Your task to perform on an android device: See recent photos Image 0: 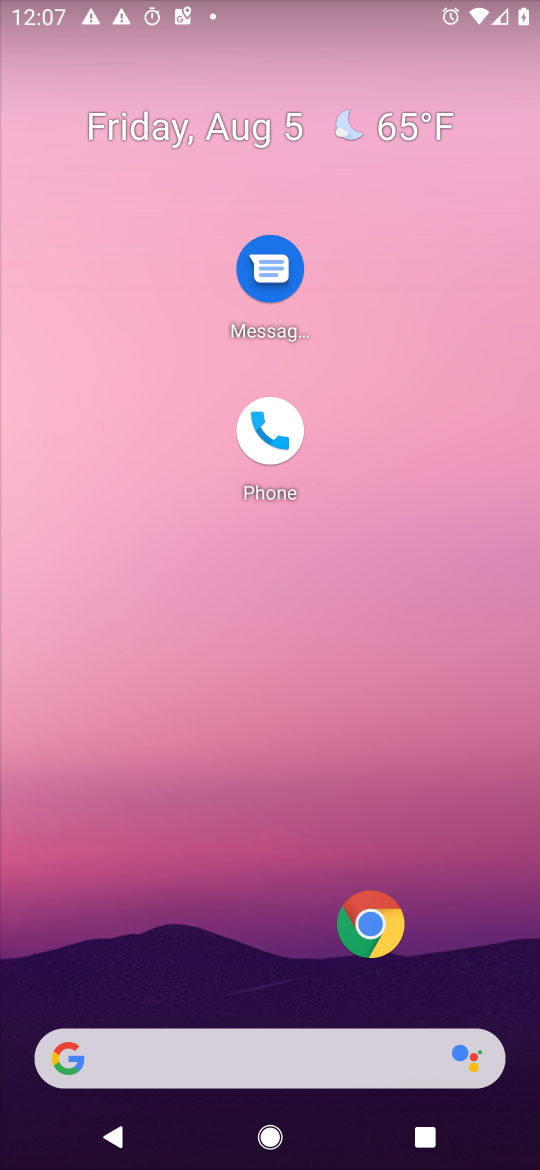
Step 0: drag from (283, 879) to (298, 291)
Your task to perform on an android device: See recent photos Image 1: 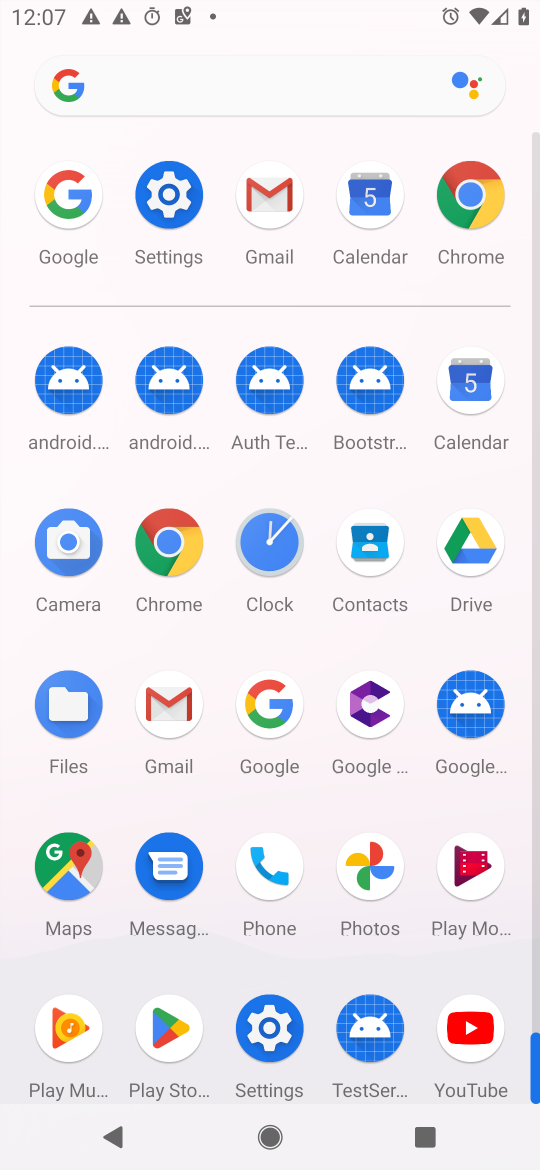
Step 1: click (366, 851)
Your task to perform on an android device: See recent photos Image 2: 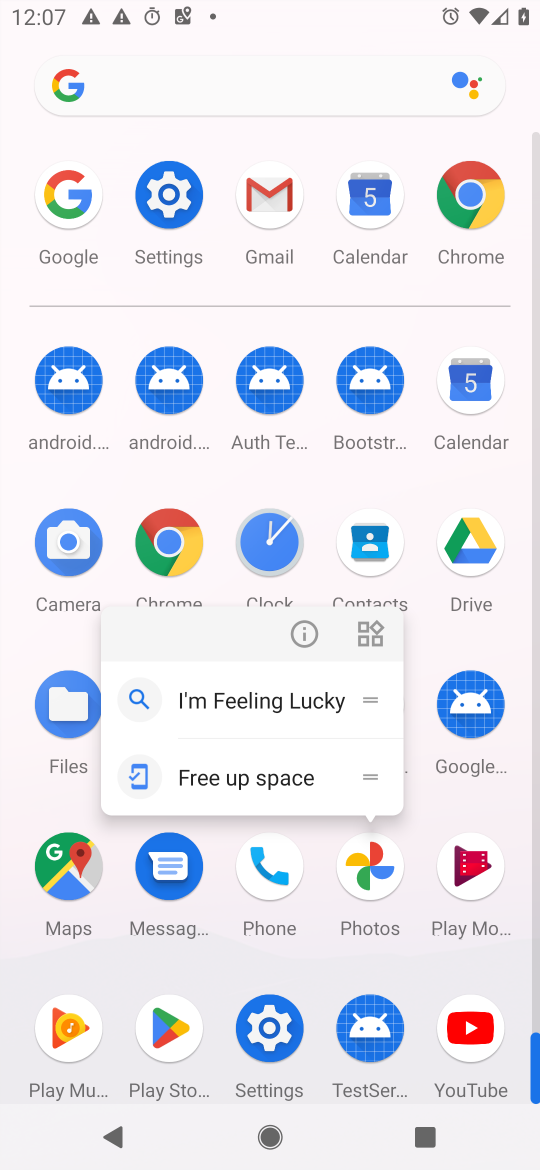
Step 2: click (294, 630)
Your task to perform on an android device: See recent photos Image 3: 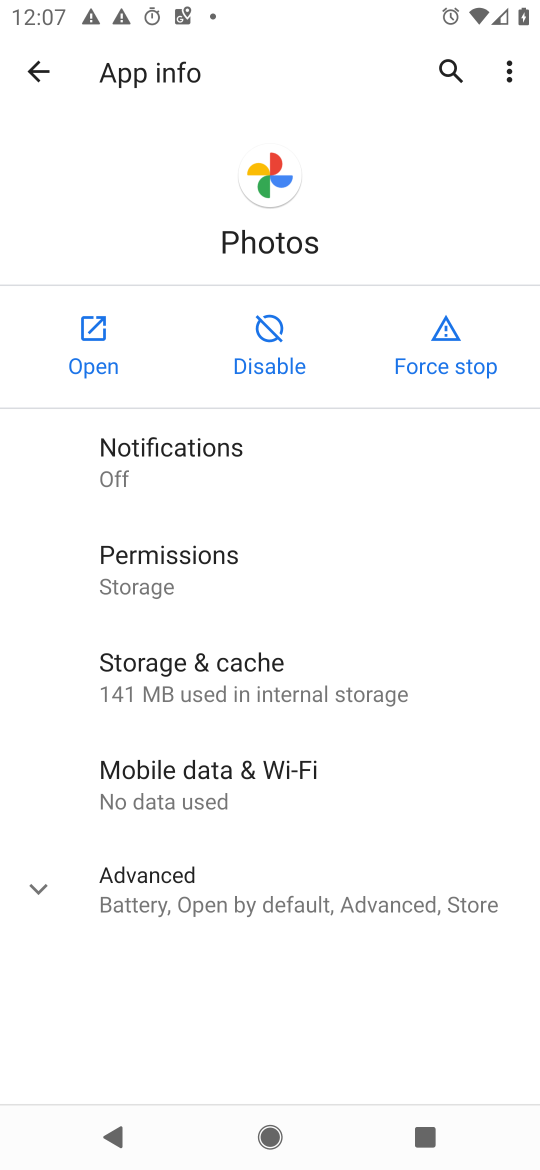
Step 3: click (93, 331)
Your task to perform on an android device: See recent photos Image 4: 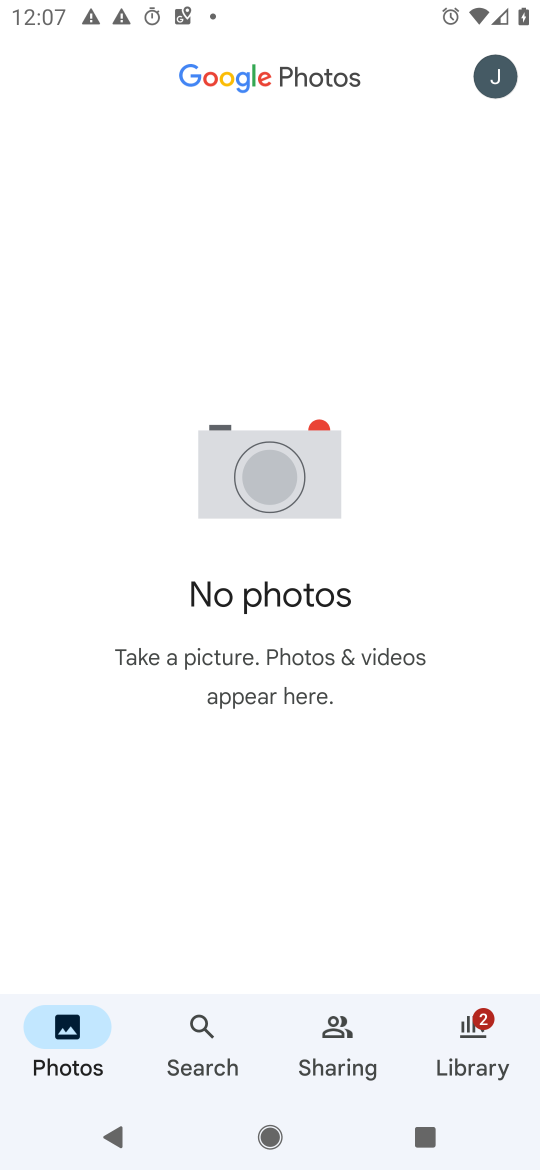
Step 4: click (499, 70)
Your task to perform on an android device: See recent photos Image 5: 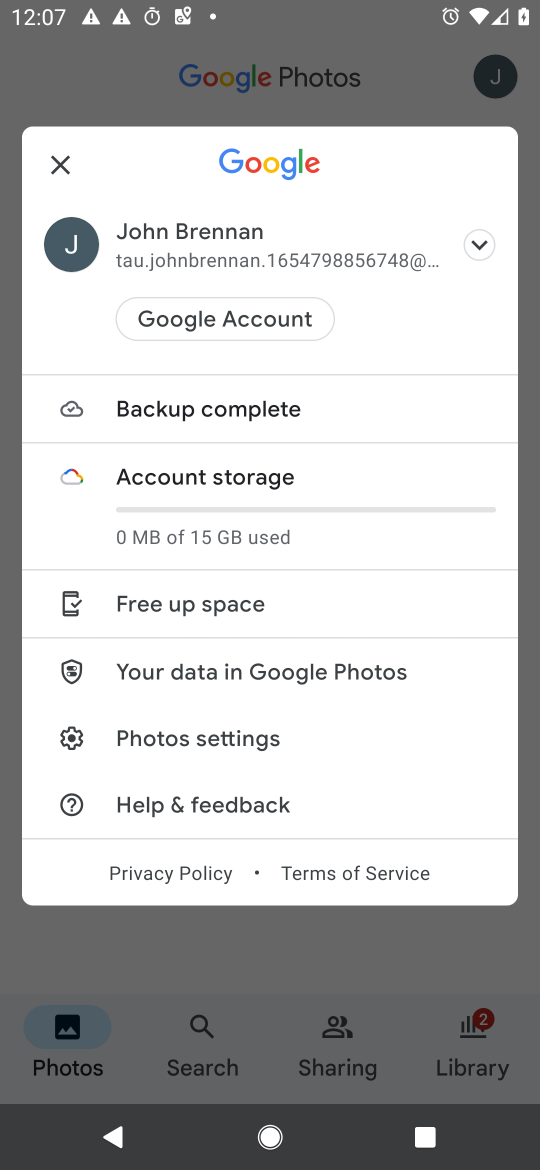
Step 5: click (194, 751)
Your task to perform on an android device: See recent photos Image 6: 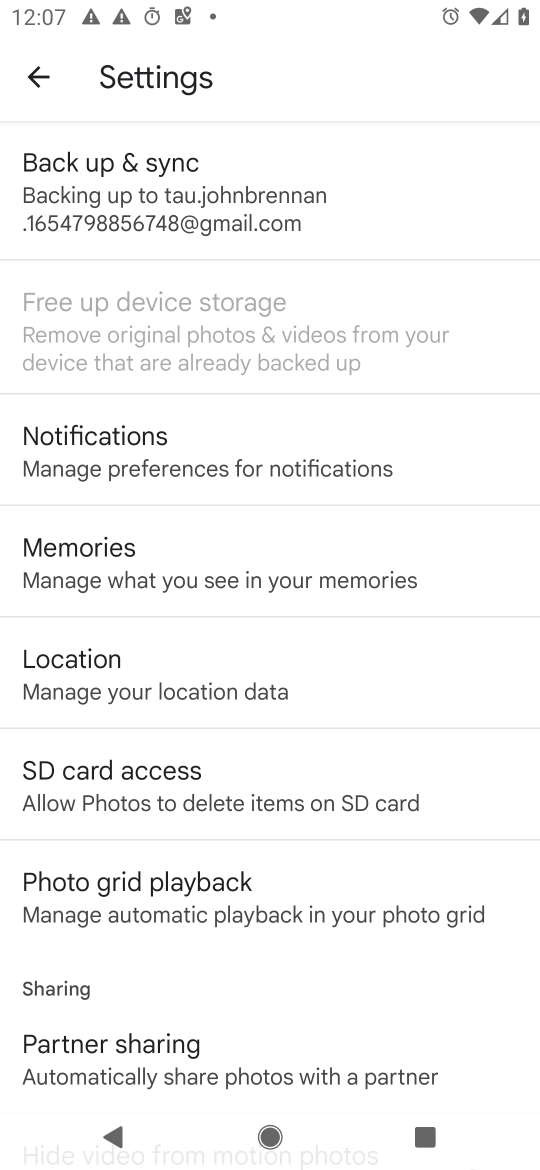
Step 6: click (179, 194)
Your task to perform on an android device: See recent photos Image 7: 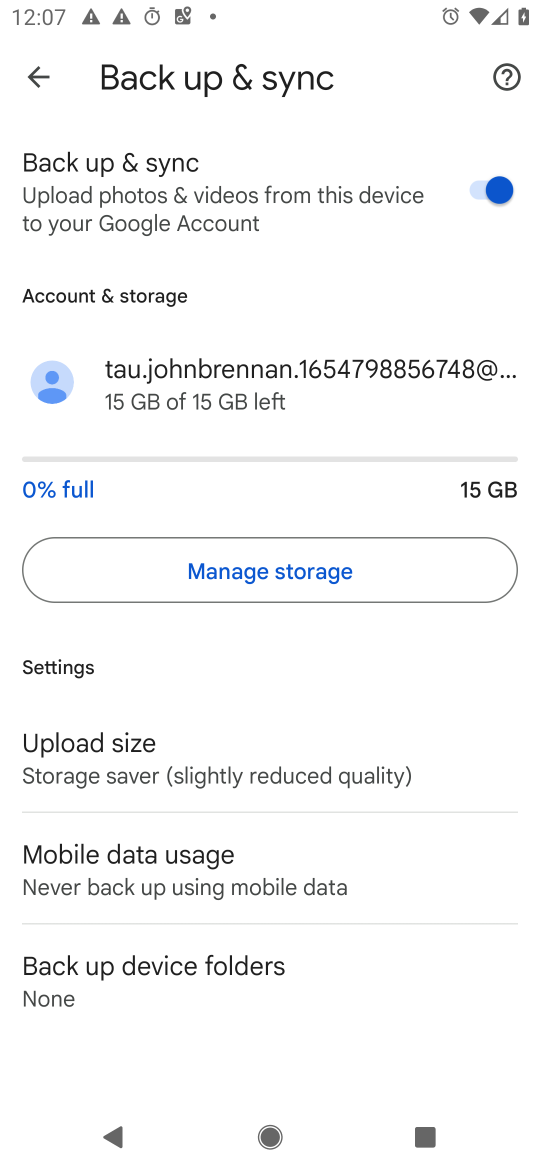
Step 7: drag from (252, 753) to (334, 408)
Your task to perform on an android device: See recent photos Image 8: 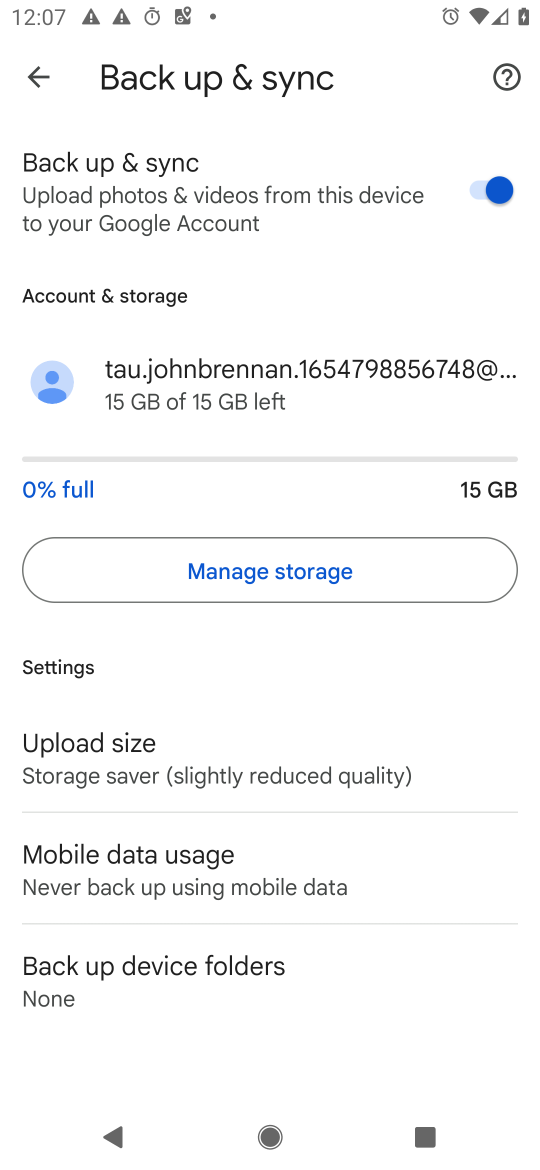
Step 8: click (27, 83)
Your task to perform on an android device: See recent photos Image 9: 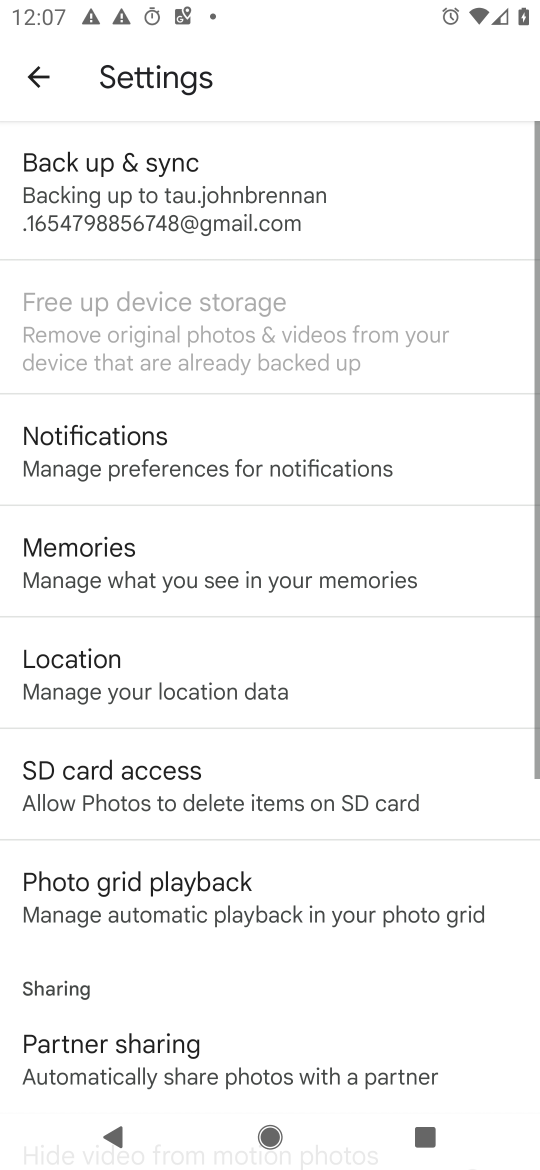
Step 9: click (37, 93)
Your task to perform on an android device: See recent photos Image 10: 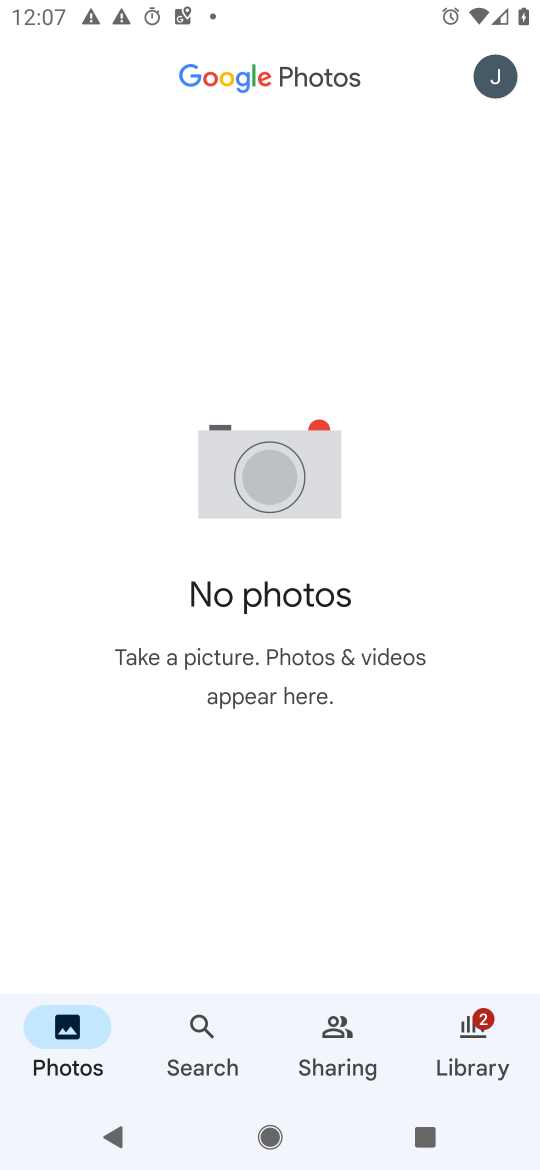
Step 10: task complete